Your task to perform on an android device: see sites visited before in the chrome app Image 0: 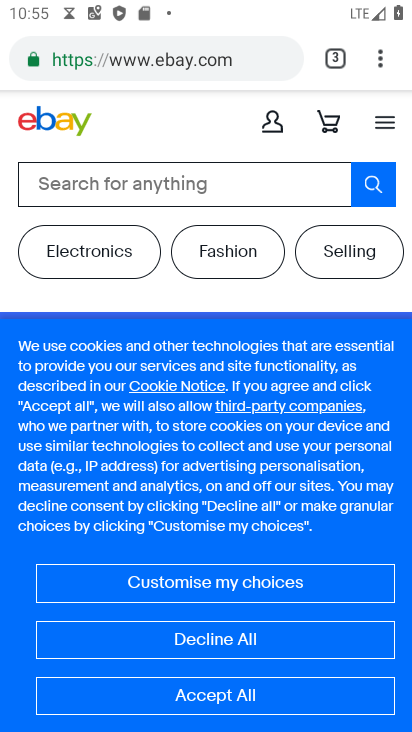
Step 0: click (393, 52)
Your task to perform on an android device: see sites visited before in the chrome app Image 1: 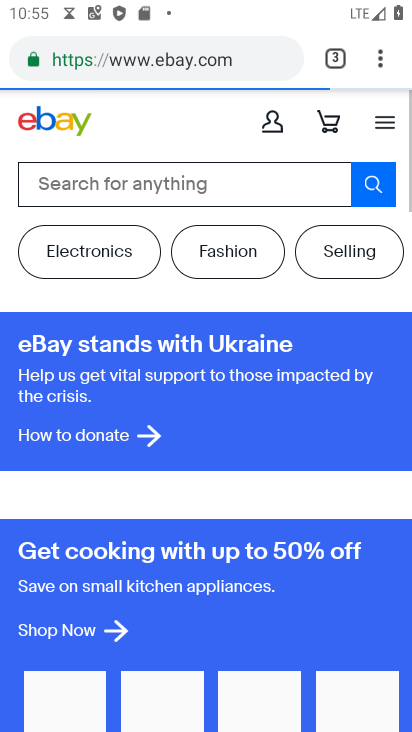
Step 1: click (380, 59)
Your task to perform on an android device: see sites visited before in the chrome app Image 2: 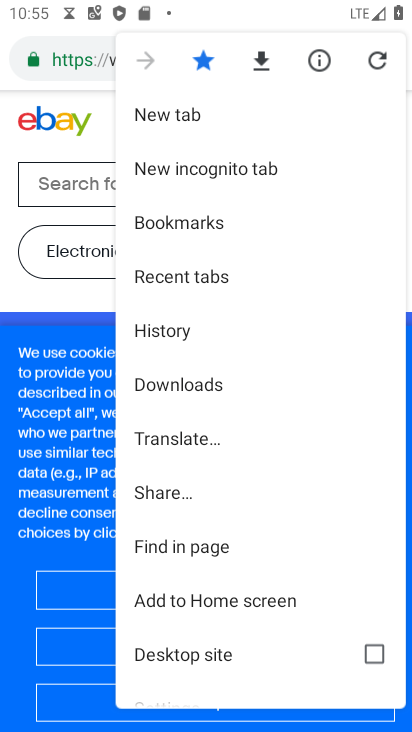
Step 2: click (197, 323)
Your task to perform on an android device: see sites visited before in the chrome app Image 3: 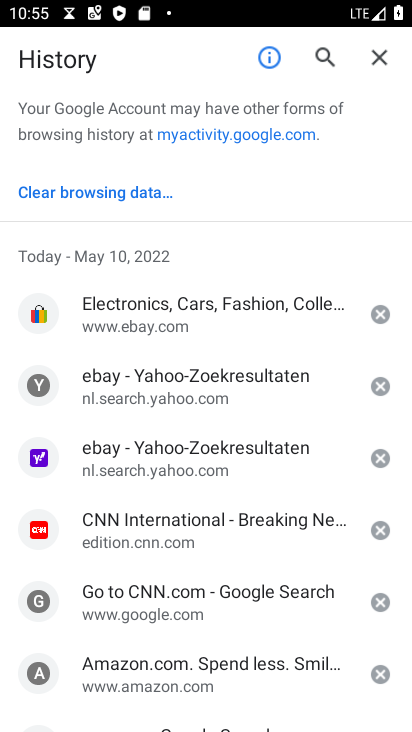
Step 3: task complete